Your task to perform on an android device: Open Chrome and go to the settings page Image 0: 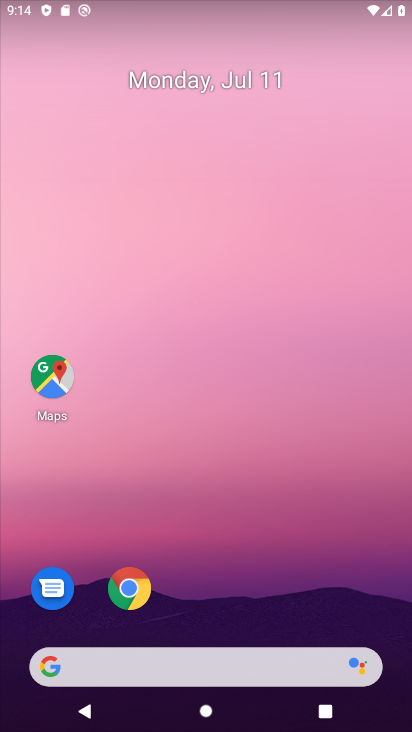
Step 0: click (132, 591)
Your task to perform on an android device: Open Chrome and go to the settings page Image 1: 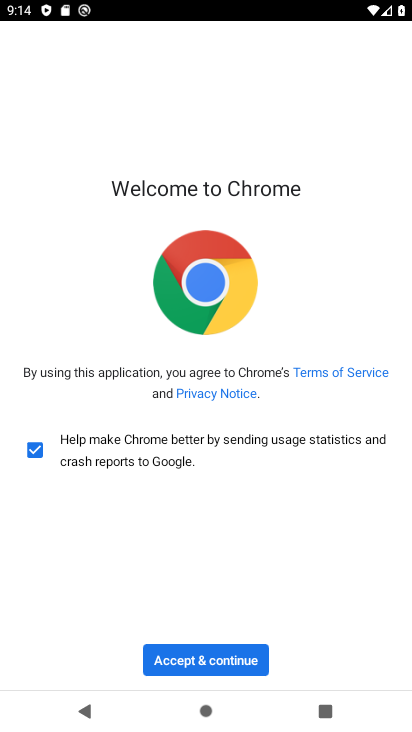
Step 1: click (205, 647)
Your task to perform on an android device: Open Chrome and go to the settings page Image 2: 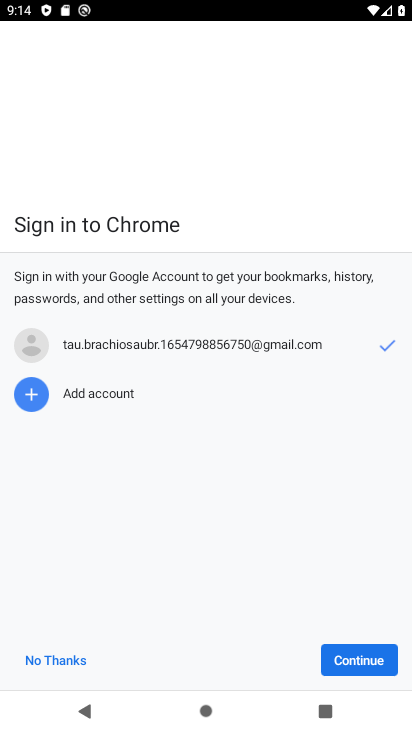
Step 2: click (340, 661)
Your task to perform on an android device: Open Chrome and go to the settings page Image 3: 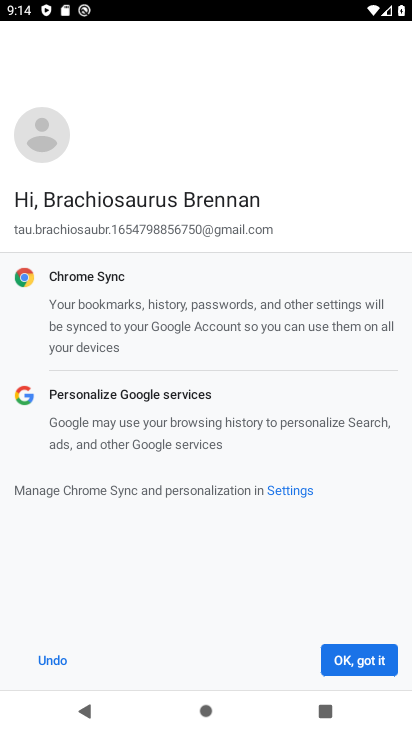
Step 3: click (340, 661)
Your task to perform on an android device: Open Chrome and go to the settings page Image 4: 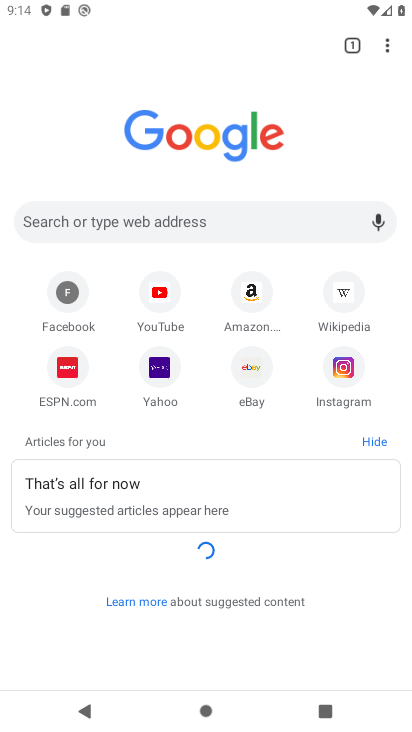
Step 4: click (387, 38)
Your task to perform on an android device: Open Chrome and go to the settings page Image 5: 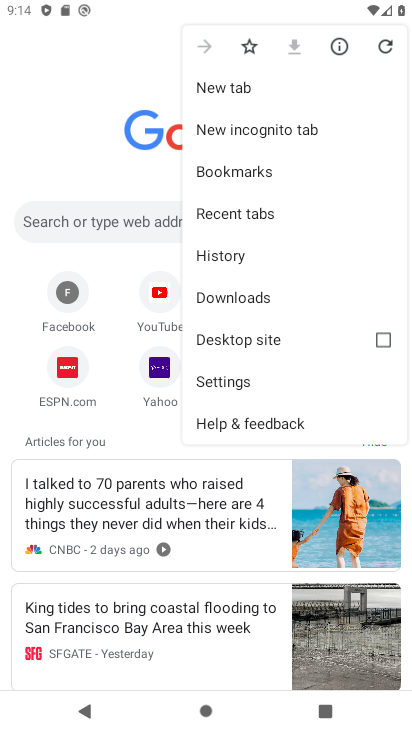
Step 5: click (216, 370)
Your task to perform on an android device: Open Chrome and go to the settings page Image 6: 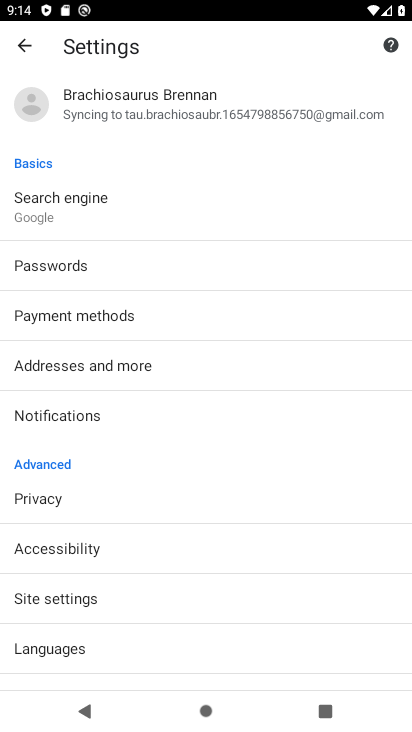
Step 6: task complete